Your task to perform on an android device: Go to eBay Image 0: 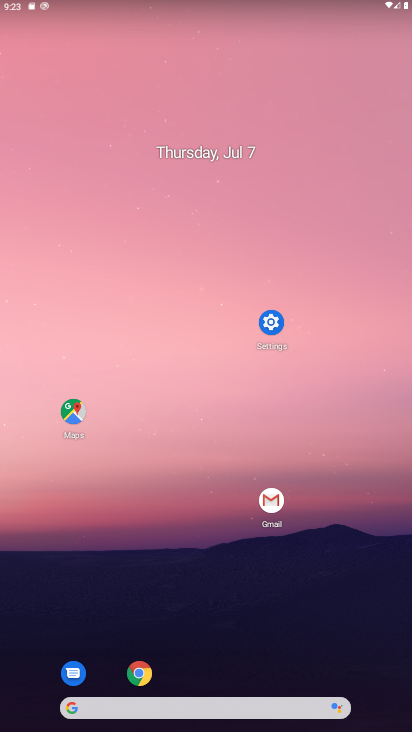
Step 0: click (137, 672)
Your task to perform on an android device: Go to eBay Image 1: 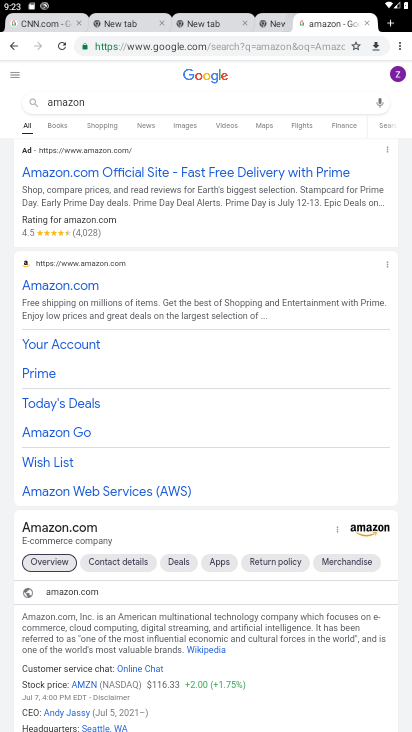
Step 1: click (330, 46)
Your task to perform on an android device: Go to eBay Image 2: 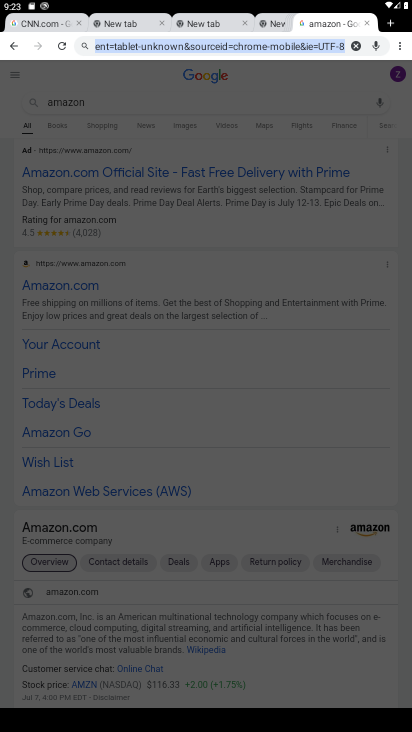
Step 2: click (354, 43)
Your task to perform on an android device: Go to eBay Image 3: 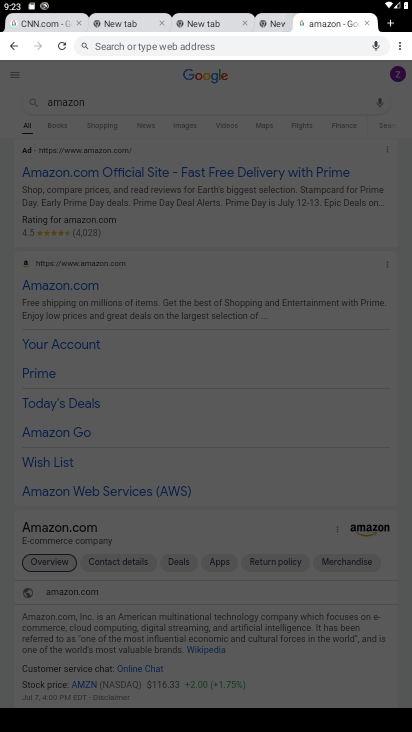
Step 3: type "eBay"
Your task to perform on an android device: Go to eBay Image 4: 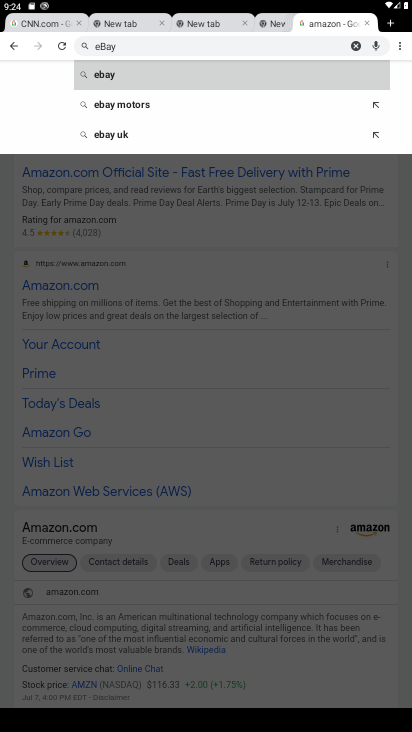
Step 4: click (128, 78)
Your task to perform on an android device: Go to eBay Image 5: 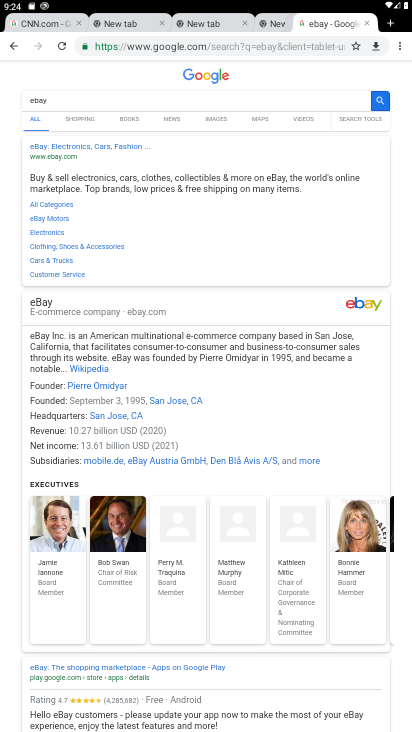
Step 5: task complete